Your task to perform on an android device: turn on location history Image 0: 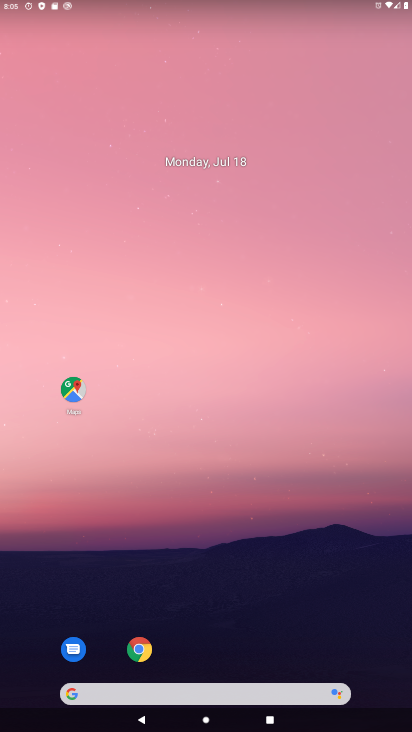
Step 0: drag from (303, 597) to (247, 65)
Your task to perform on an android device: turn on location history Image 1: 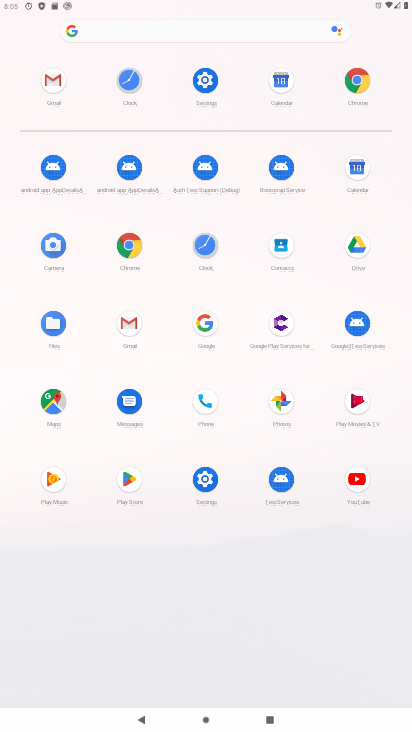
Step 1: click (201, 81)
Your task to perform on an android device: turn on location history Image 2: 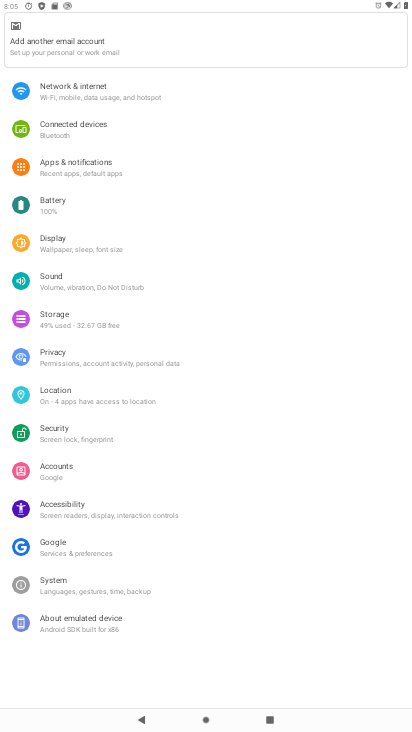
Step 2: click (88, 402)
Your task to perform on an android device: turn on location history Image 3: 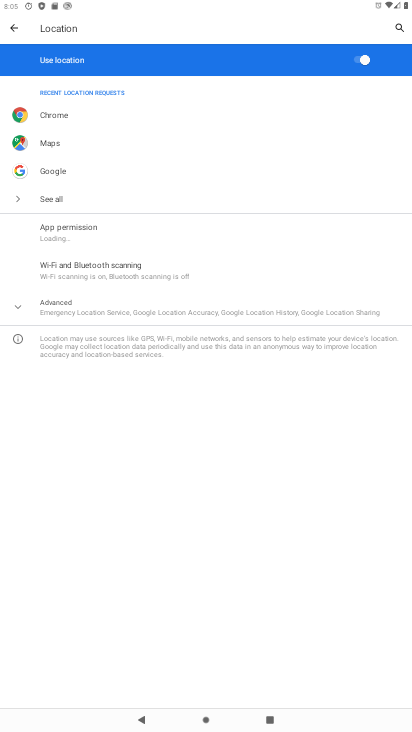
Step 3: click (105, 306)
Your task to perform on an android device: turn on location history Image 4: 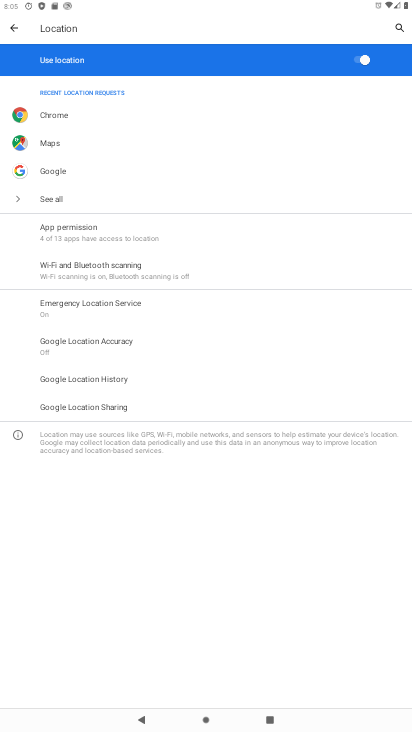
Step 4: click (118, 376)
Your task to perform on an android device: turn on location history Image 5: 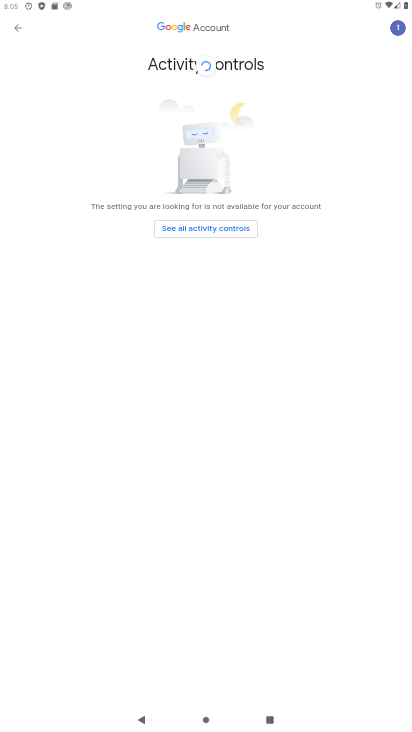
Step 5: task complete